Your task to perform on an android device: turn notification dots off Image 0: 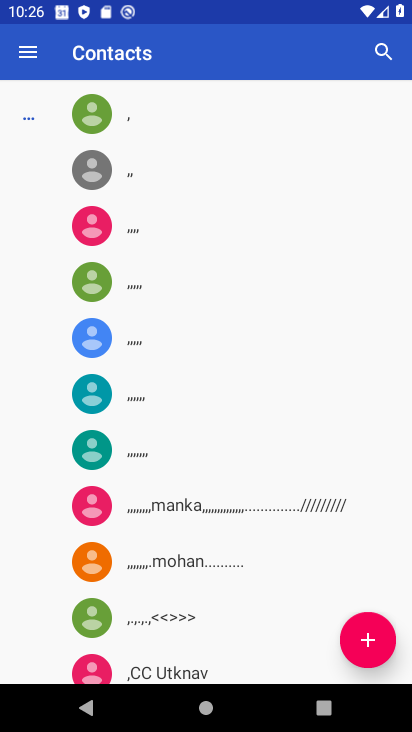
Step 0: press home button
Your task to perform on an android device: turn notification dots off Image 1: 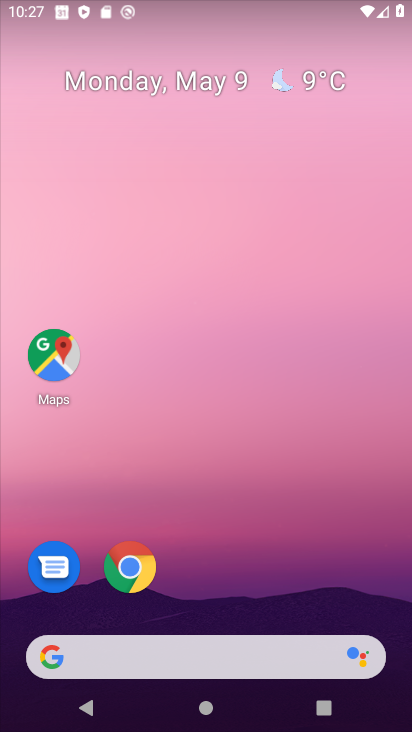
Step 1: drag from (208, 609) to (215, 66)
Your task to perform on an android device: turn notification dots off Image 2: 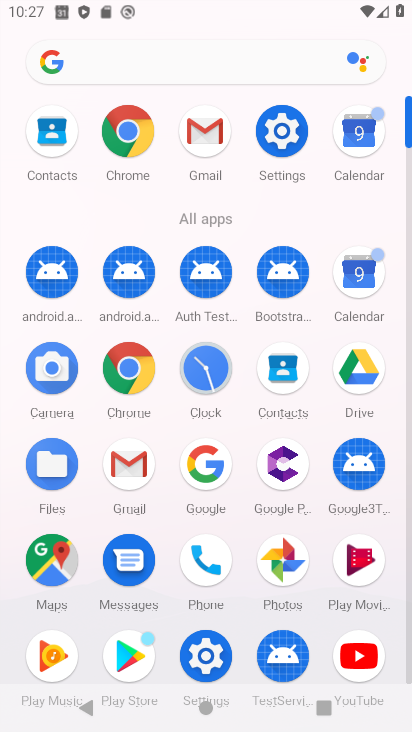
Step 2: click (281, 128)
Your task to perform on an android device: turn notification dots off Image 3: 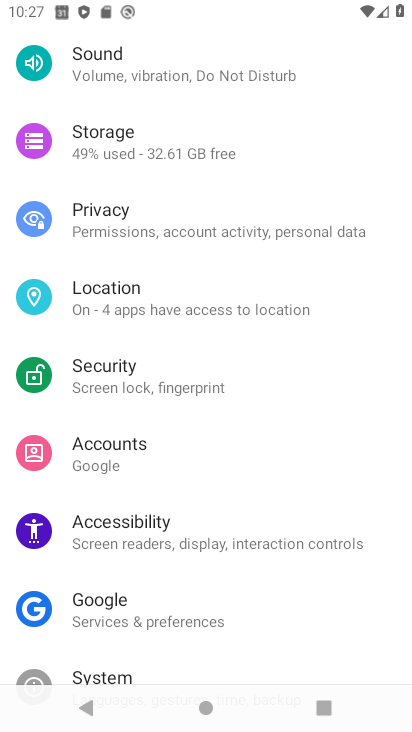
Step 3: drag from (159, 141) to (164, 618)
Your task to perform on an android device: turn notification dots off Image 4: 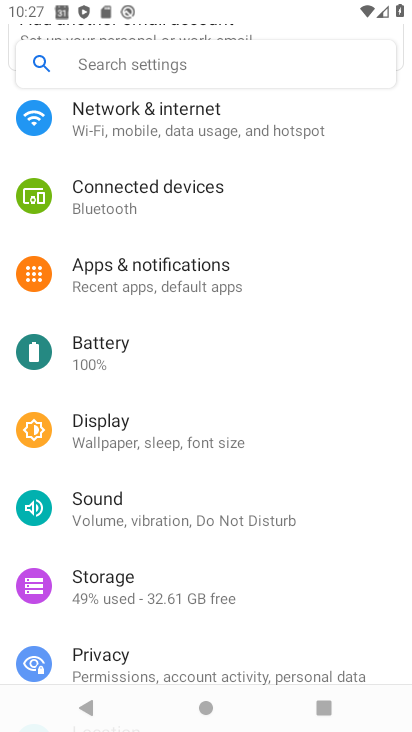
Step 4: click (157, 264)
Your task to perform on an android device: turn notification dots off Image 5: 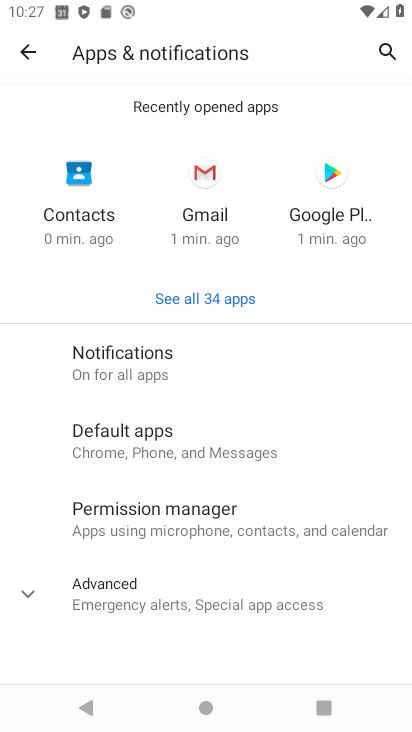
Step 5: click (178, 356)
Your task to perform on an android device: turn notification dots off Image 6: 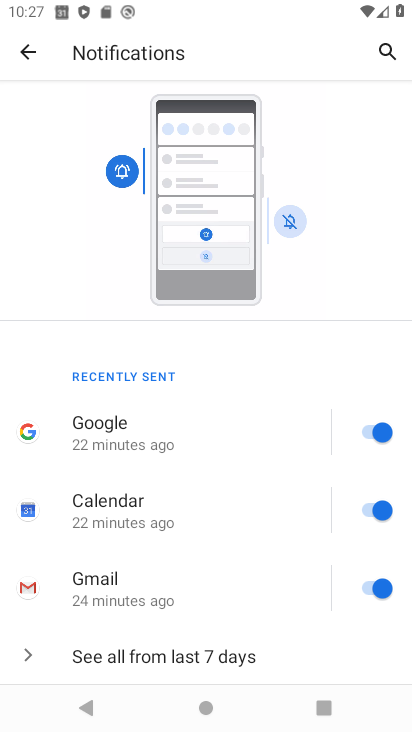
Step 6: drag from (231, 633) to (253, 168)
Your task to perform on an android device: turn notification dots off Image 7: 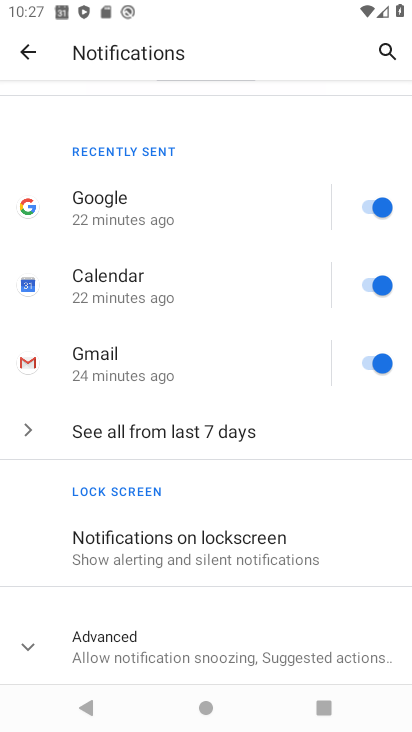
Step 7: click (105, 655)
Your task to perform on an android device: turn notification dots off Image 8: 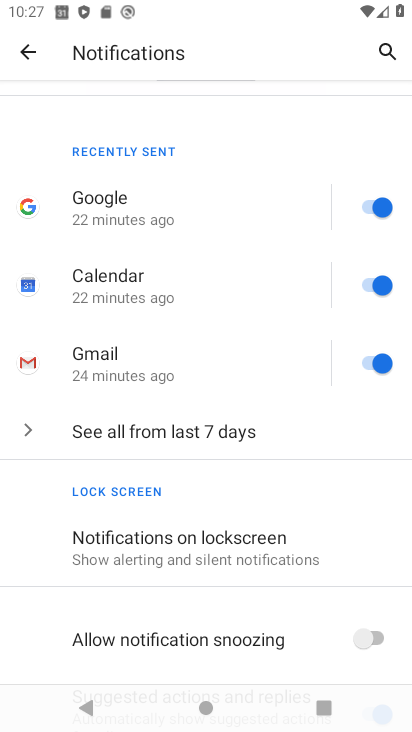
Step 8: drag from (239, 603) to (266, 267)
Your task to perform on an android device: turn notification dots off Image 9: 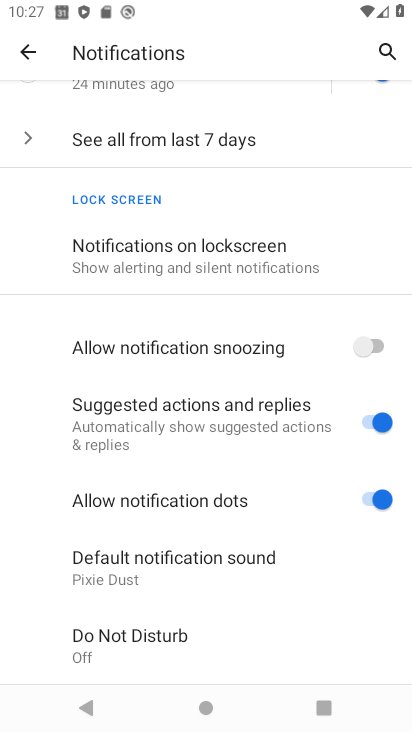
Step 9: click (370, 500)
Your task to perform on an android device: turn notification dots off Image 10: 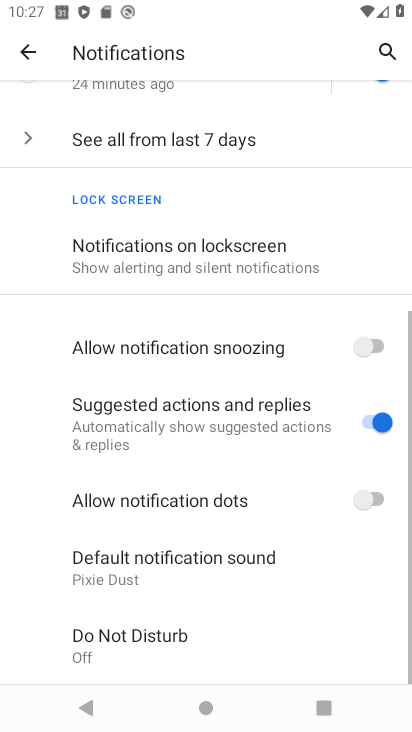
Step 10: task complete